Your task to perform on an android device: Open the calendar and show me this week's events Image 0: 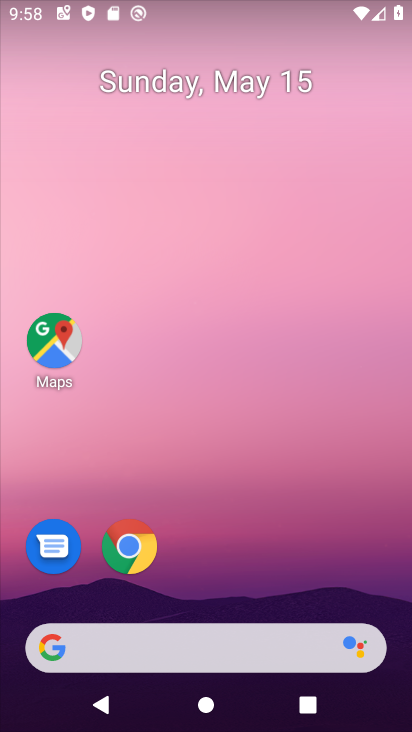
Step 0: drag from (311, 594) to (205, 118)
Your task to perform on an android device: Open the calendar and show me this week's events Image 1: 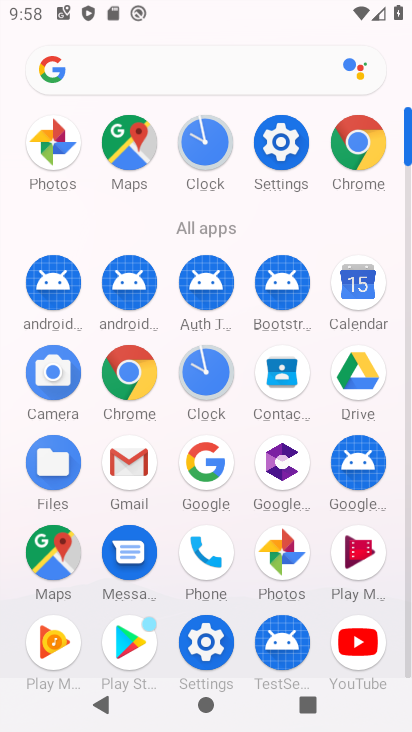
Step 1: click (347, 289)
Your task to perform on an android device: Open the calendar and show me this week's events Image 2: 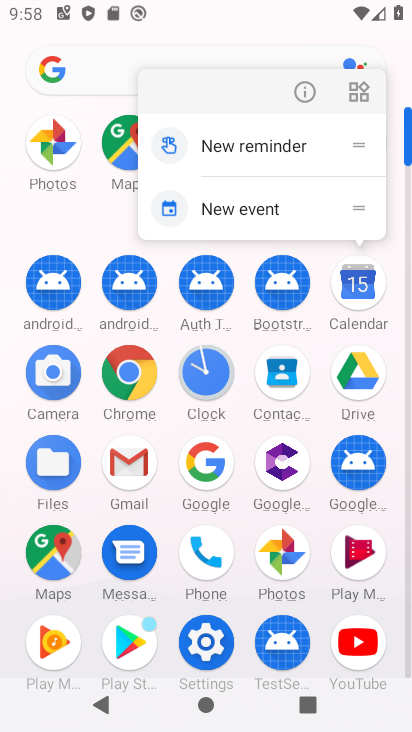
Step 2: click (350, 281)
Your task to perform on an android device: Open the calendar and show me this week's events Image 3: 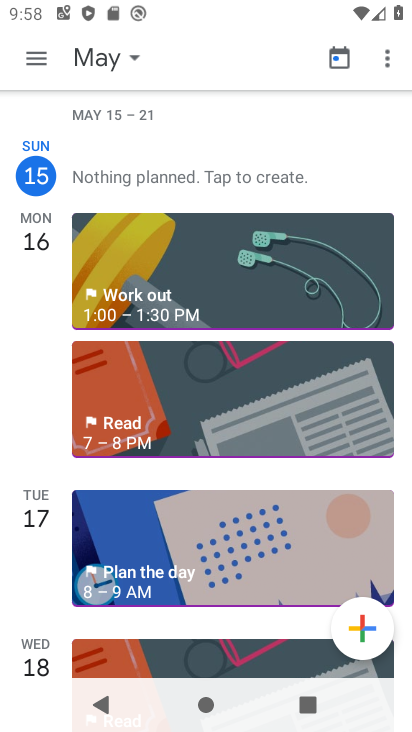
Step 3: click (41, 64)
Your task to perform on an android device: Open the calendar and show me this week's events Image 4: 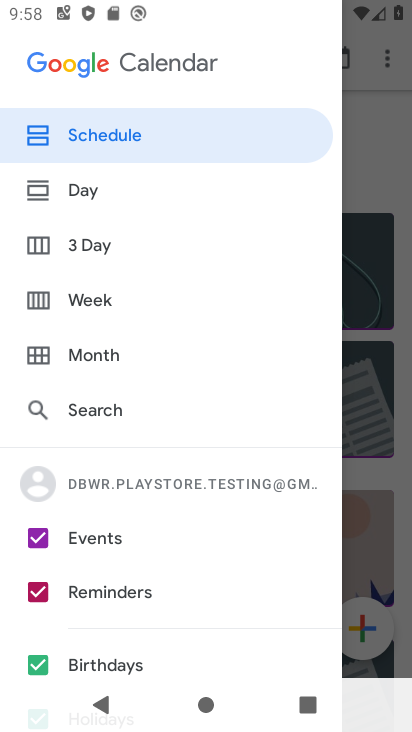
Step 4: drag from (219, 675) to (193, 462)
Your task to perform on an android device: Open the calendar and show me this week's events Image 5: 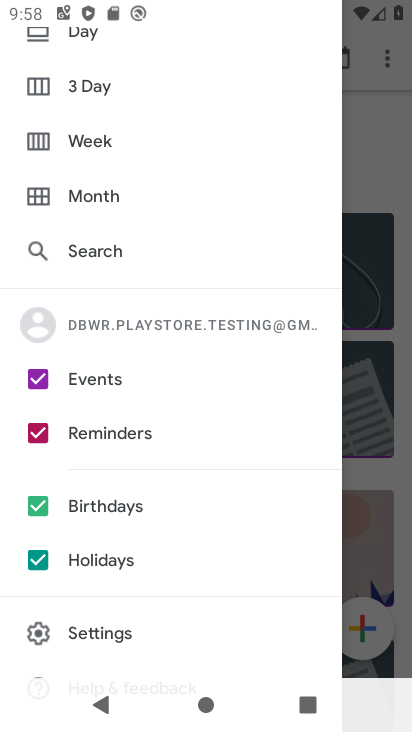
Step 5: click (365, 227)
Your task to perform on an android device: Open the calendar and show me this week's events Image 6: 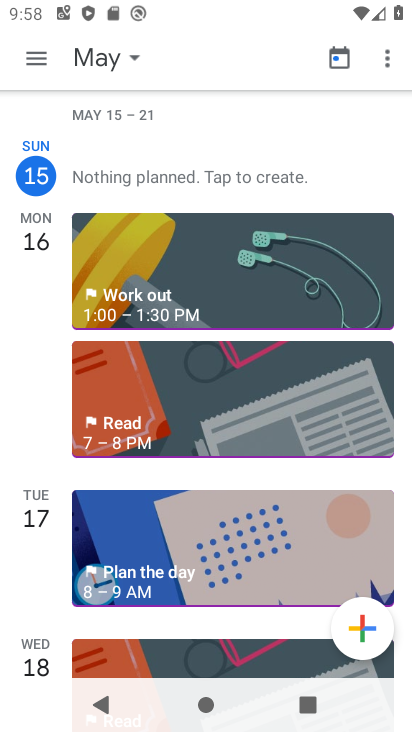
Step 6: click (34, 62)
Your task to perform on an android device: Open the calendar and show me this week's events Image 7: 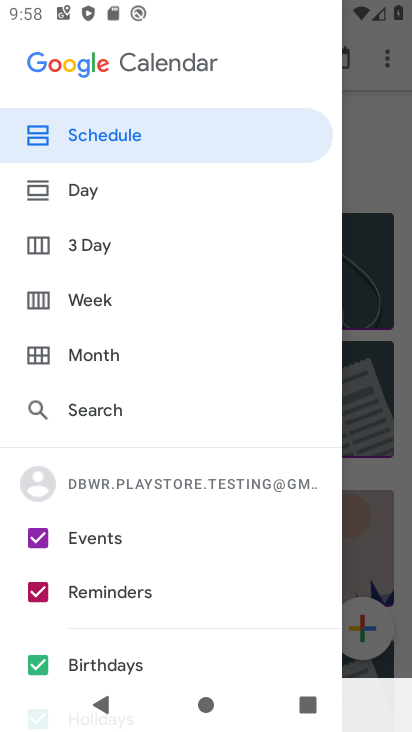
Step 7: click (127, 300)
Your task to perform on an android device: Open the calendar and show me this week's events Image 8: 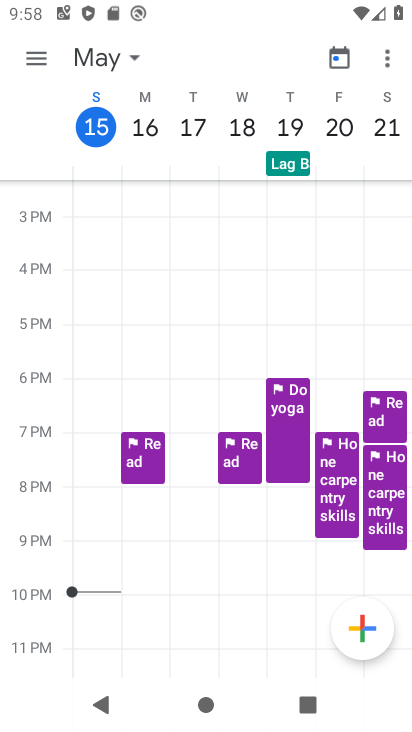
Step 8: task complete